Your task to perform on an android device: turn vacation reply on in the gmail app Image 0: 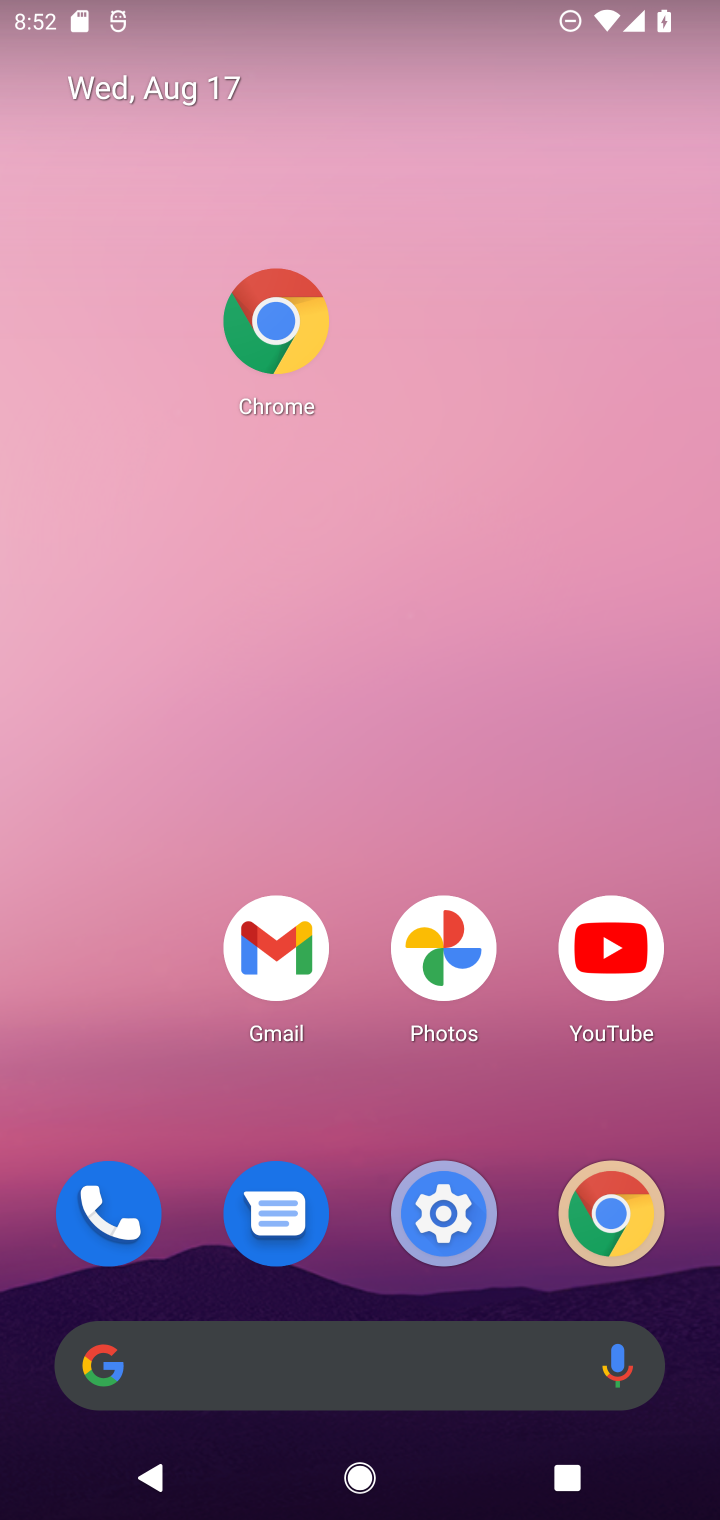
Step 0: click (302, 1027)
Your task to perform on an android device: turn vacation reply on in the gmail app Image 1: 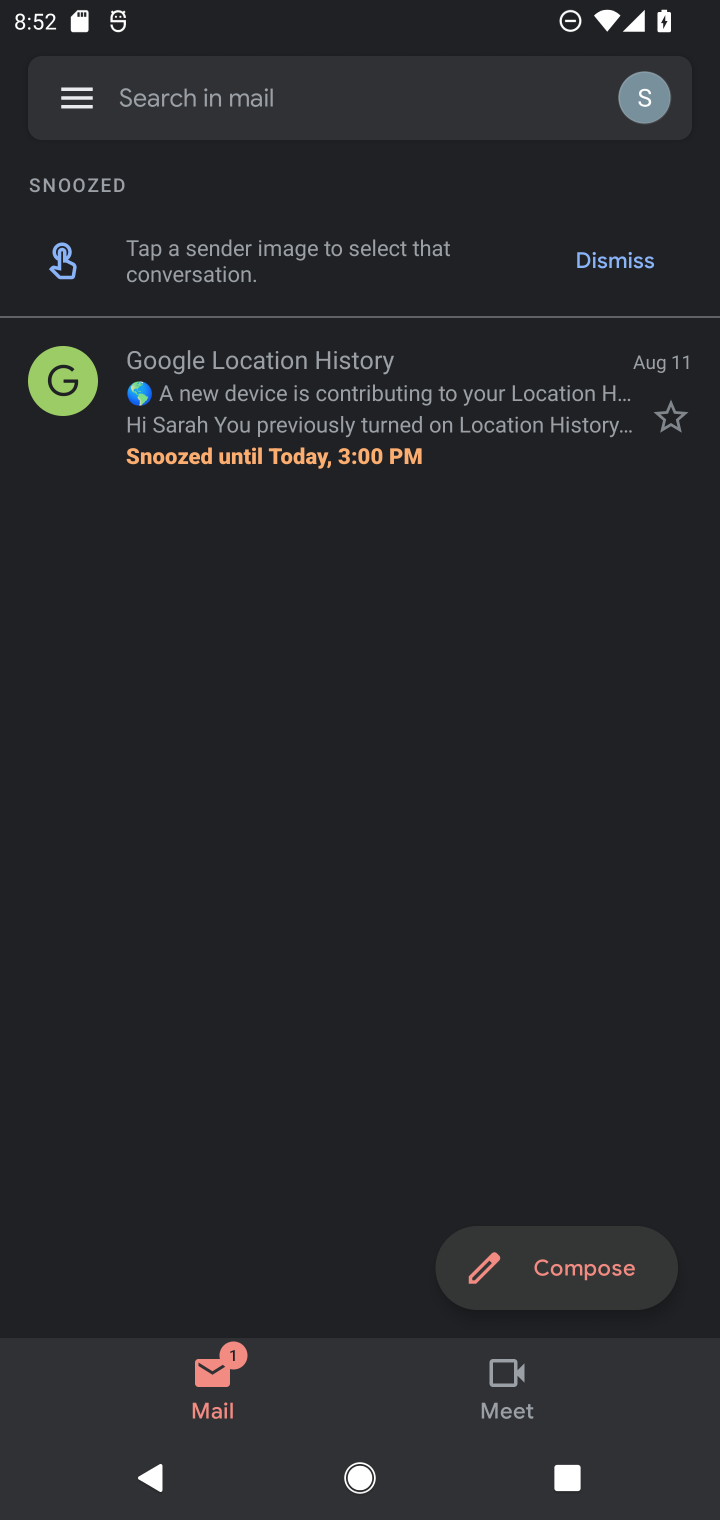
Step 1: click (55, 97)
Your task to perform on an android device: turn vacation reply on in the gmail app Image 2: 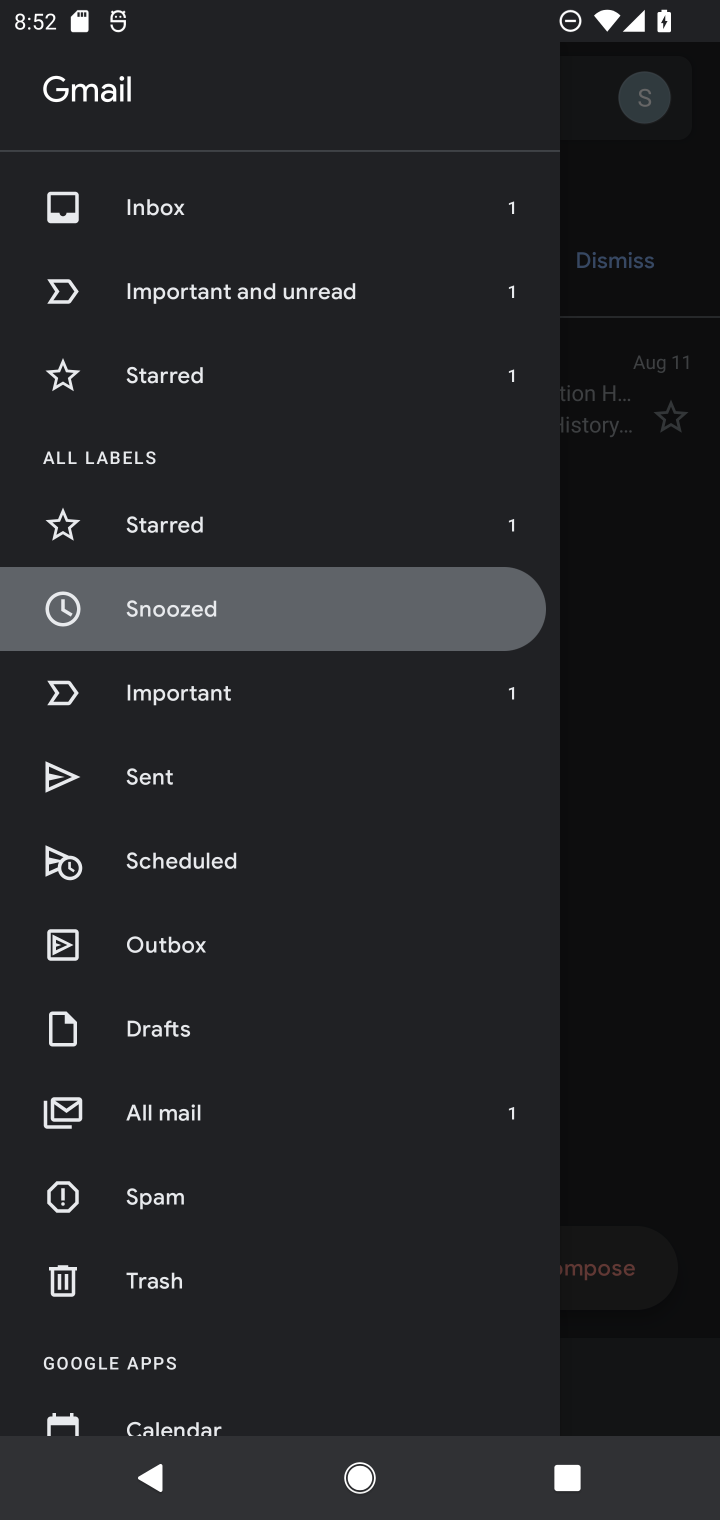
Step 2: drag from (302, 1313) to (371, 630)
Your task to perform on an android device: turn vacation reply on in the gmail app Image 3: 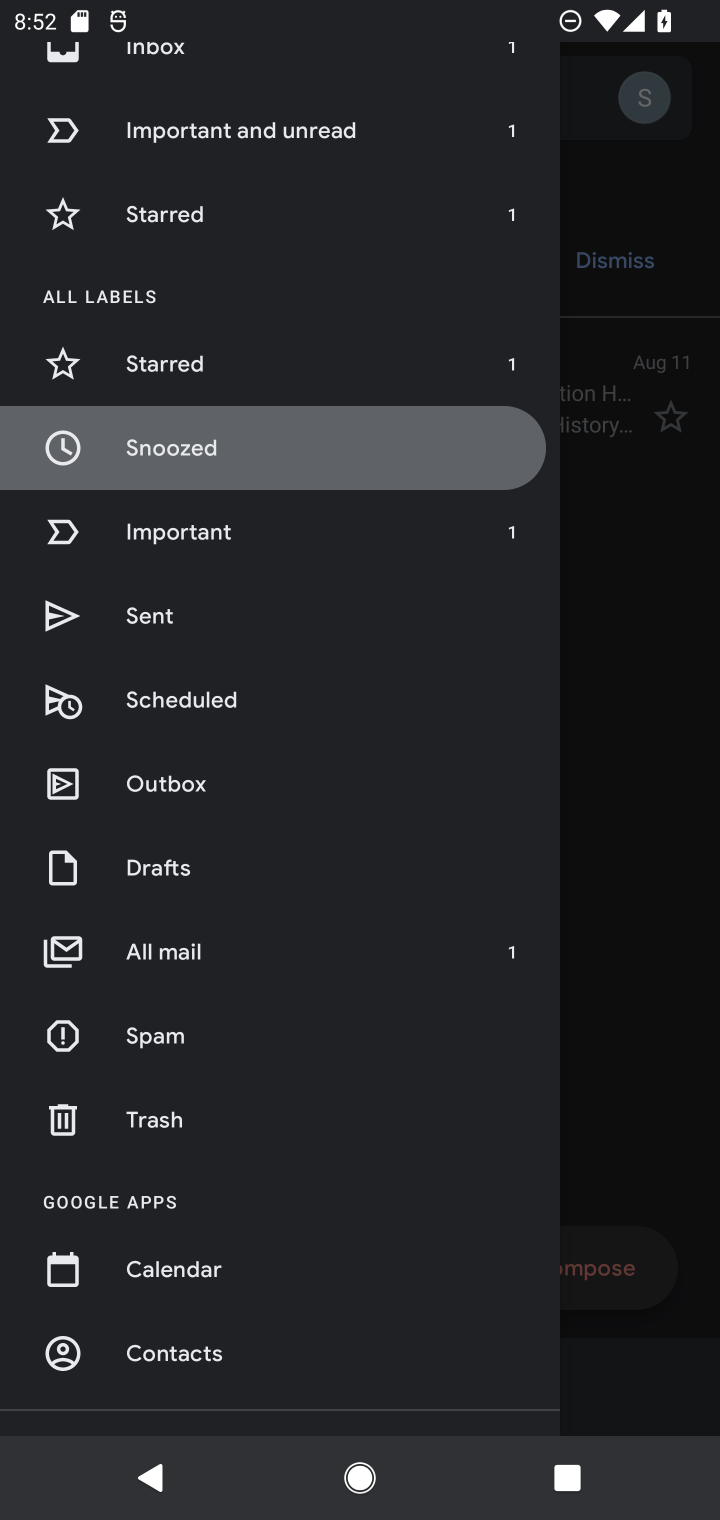
Step 3: drag from (326, 1146) to (284, 471)
Your task to perform on an android device: turn vacation reply on in the gmail app Image 4: 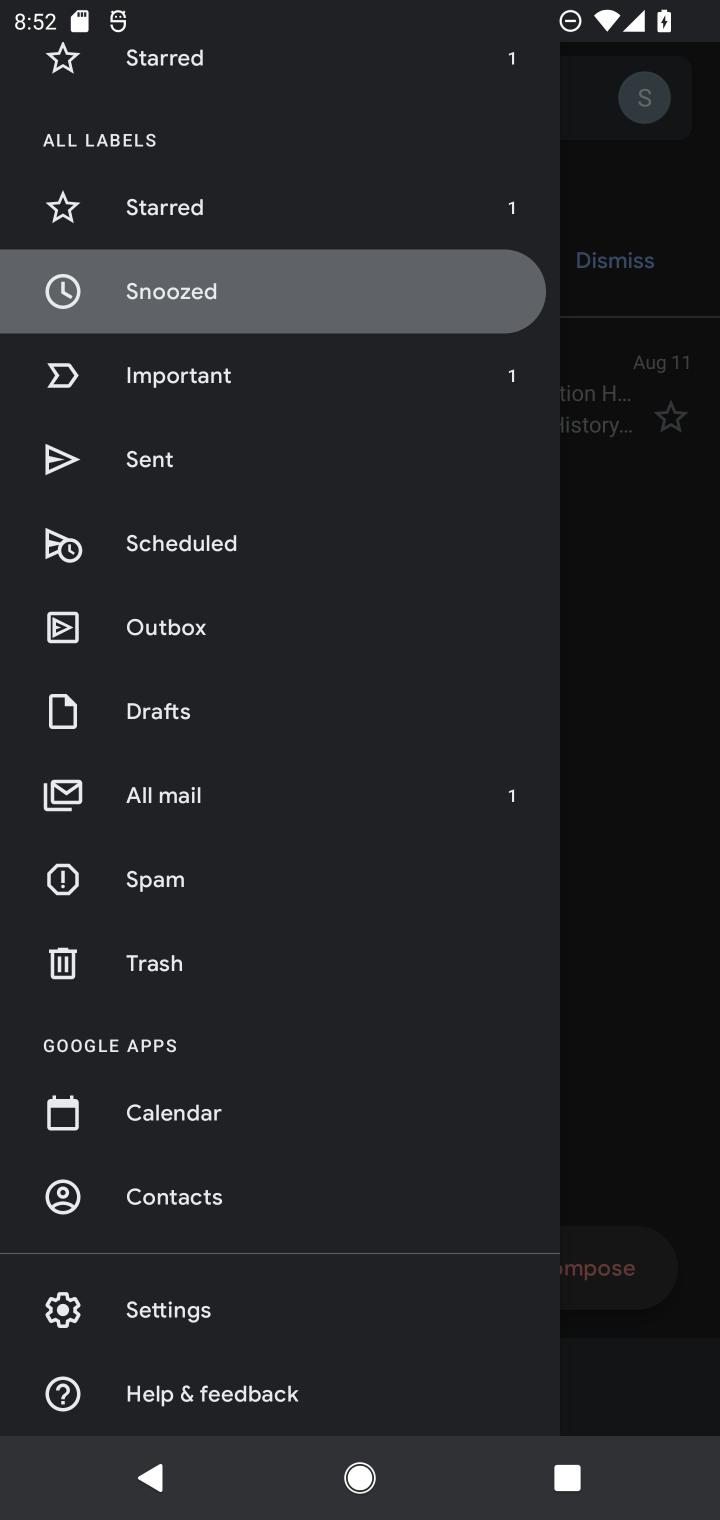
Step 4: click (259, 1328)
Your task to perform on an android device: turn vacation reply on in the gmail app Image 5: 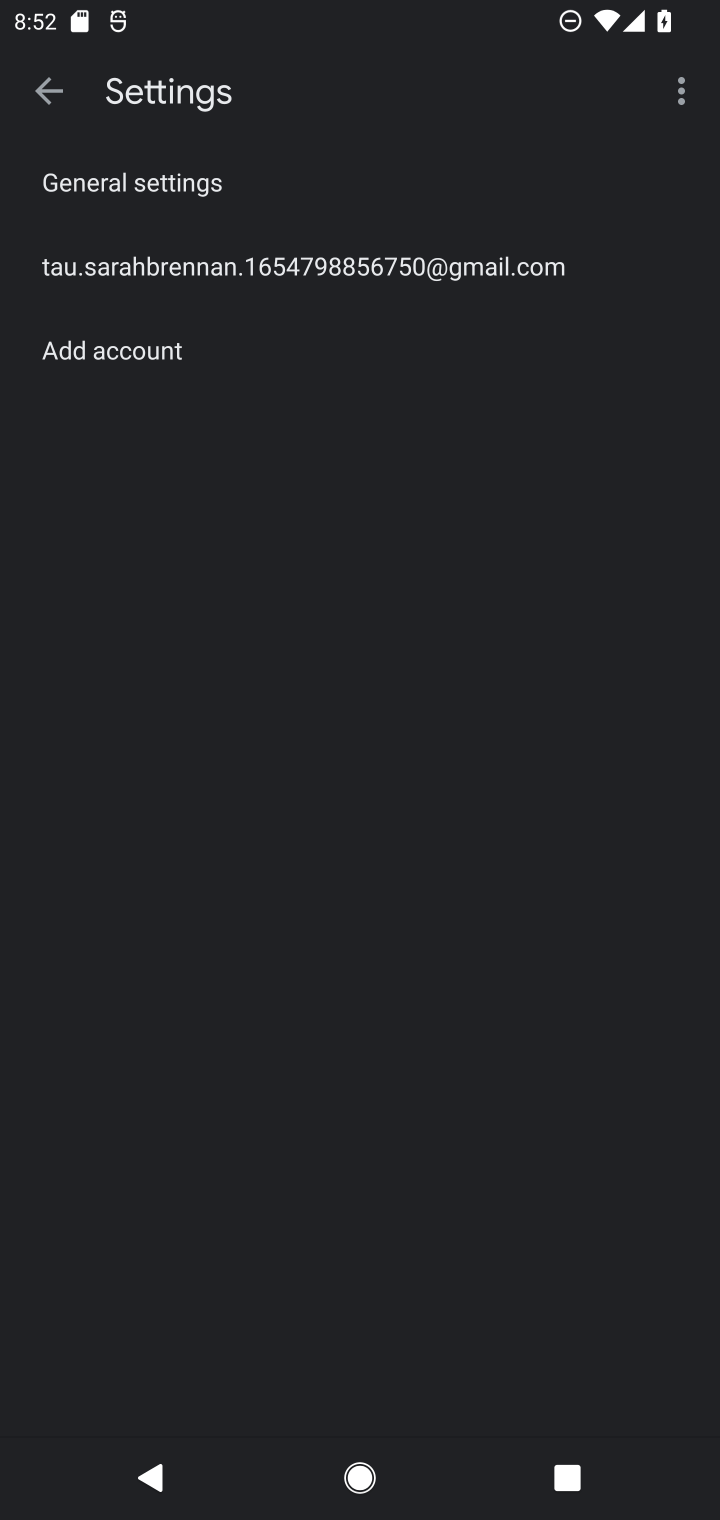
Step 5: click (334, 245)
Your task to perform on an android device: turn vacation reply on in the gmail app Image 6: 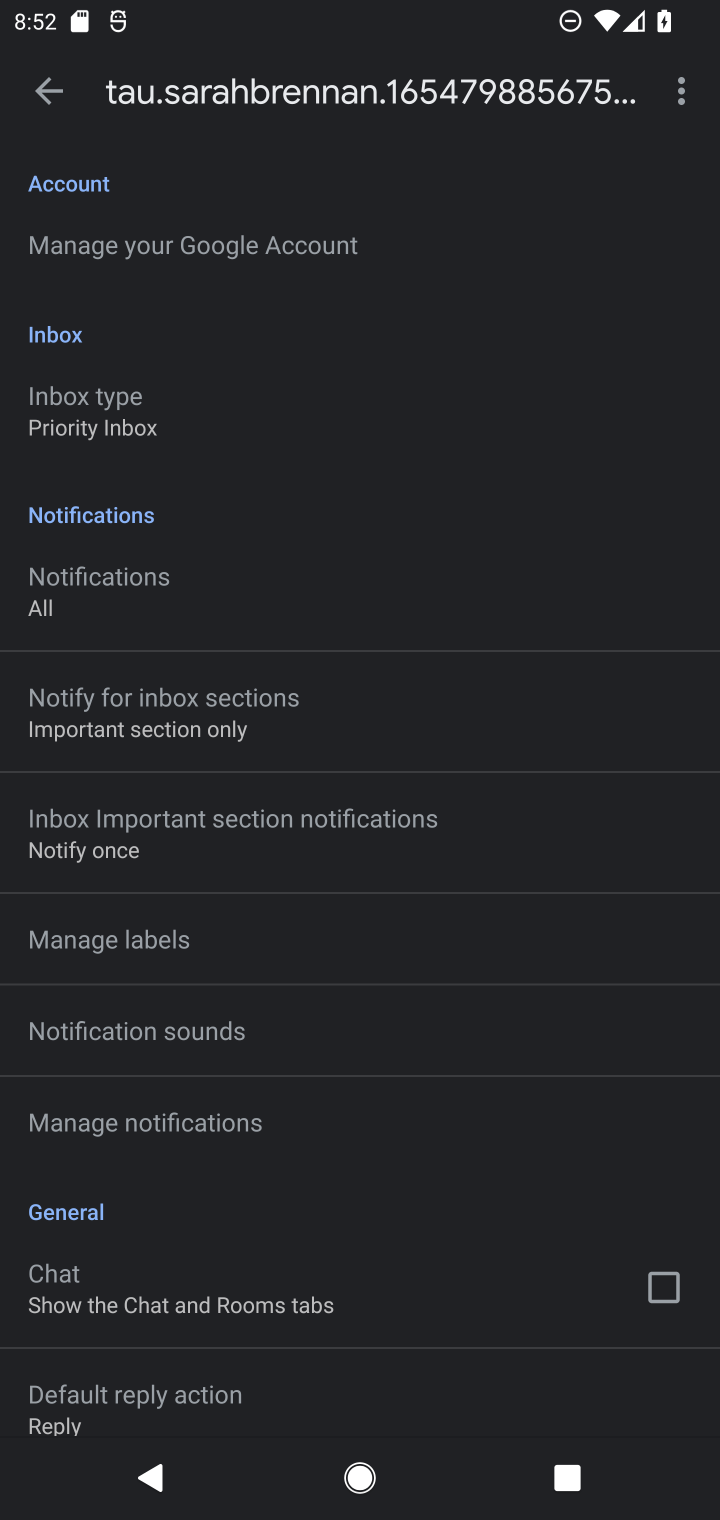
Step 6: task complete